Your task to perform on an android device: Go to Yahoo.com Image 0: 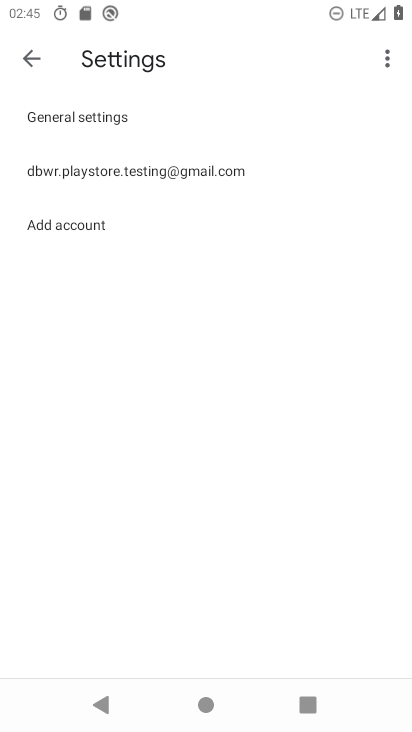
Step 0: press home button
Your task to perform on an android device: Go to Yahoo.com Image 1: 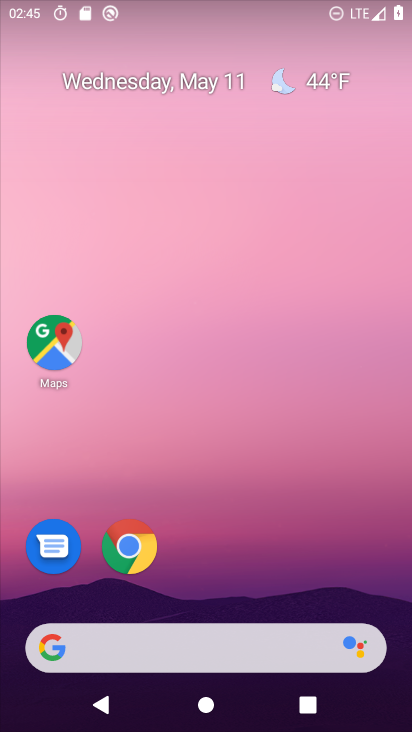
Step 1: drag from (245, 684) to (230, 223)
Your task to perform on an android device: Go to Yahoo.com Image 2: 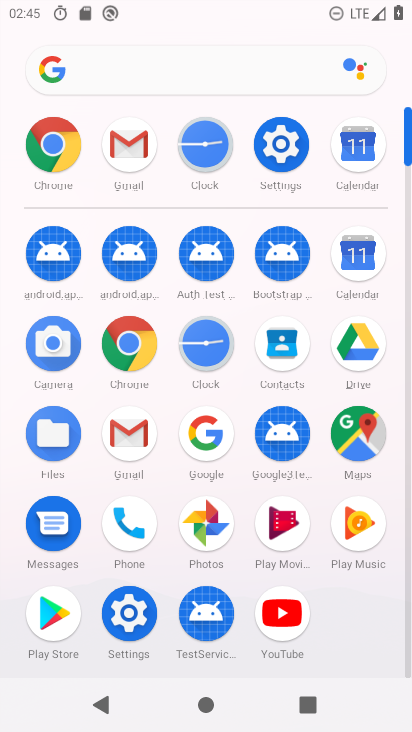
Step 2: click (54, 136)
Your task to perform on an android device: Go to Yahoo.com Image 3: 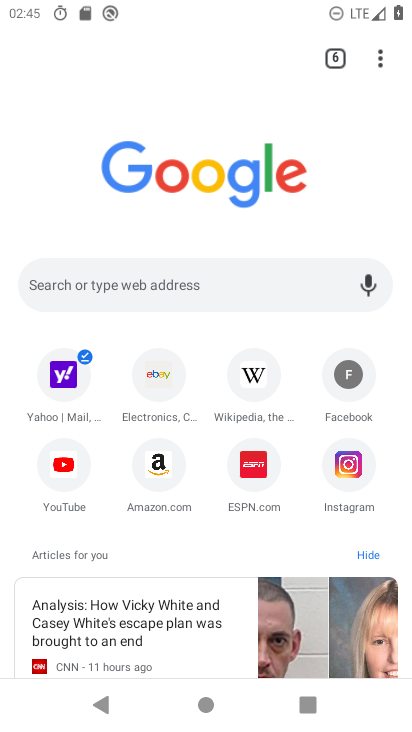
Step 3: click (90, 369)
Your task to perform on an android device: Go to Yahoo.com Image 4: 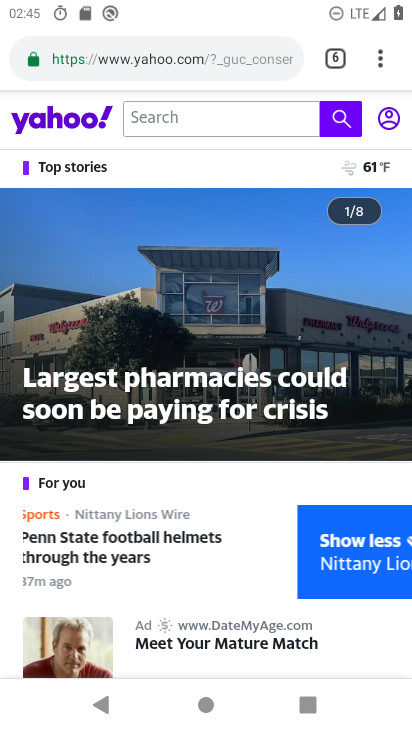
Step 4: task complete